Your task to perform on an android device: Go to calendar. Show me events next week Image 0: 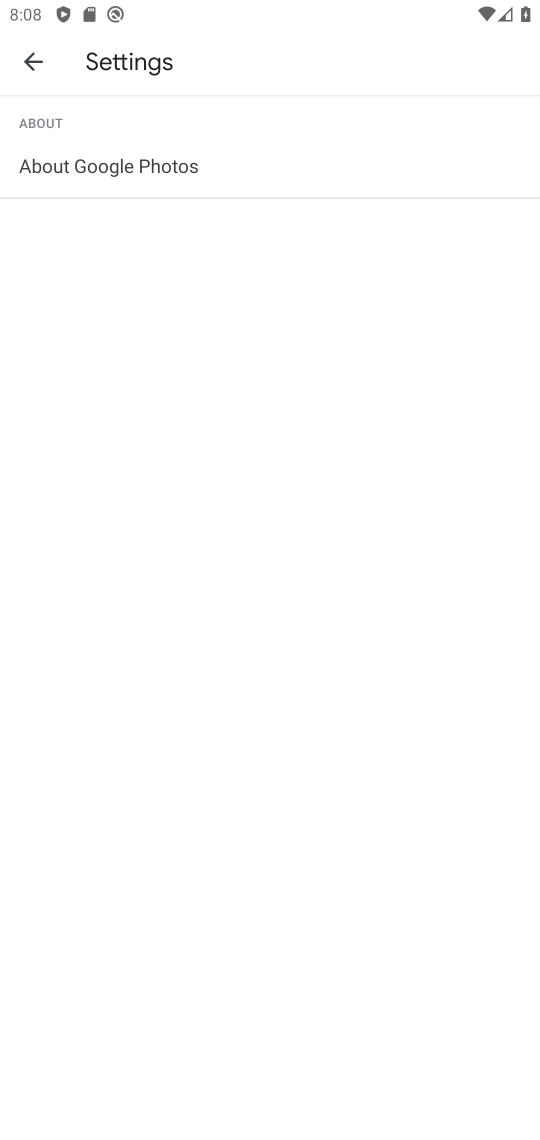
Step 0: drag from (106, 688) to (506, 515)
Your task to perform on an android device: Go to calendar. Show me events next week Image 1: 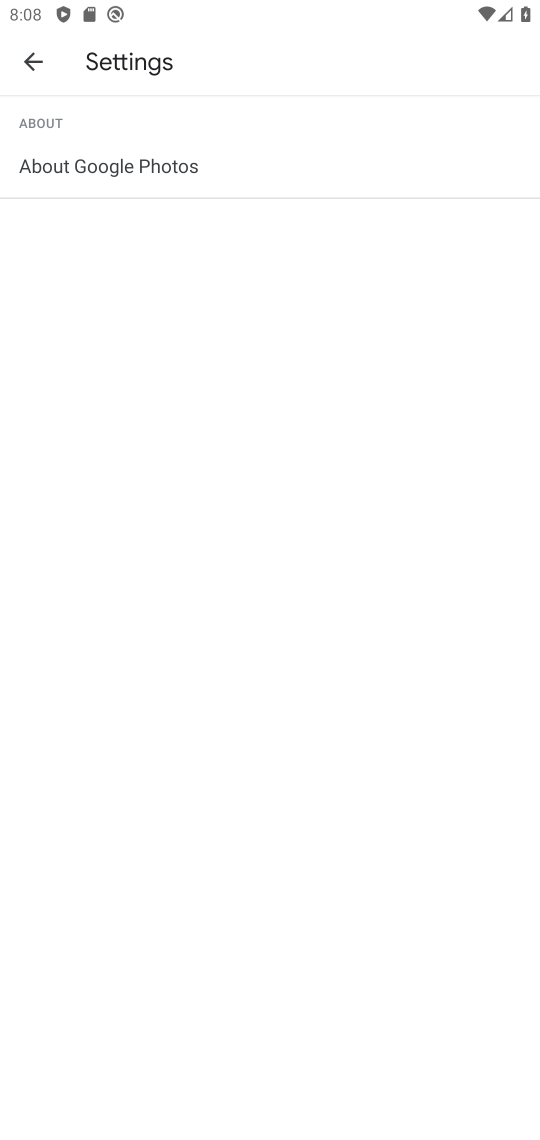
Step 1: press home button
Your task to perform on an android device: Go to calendar. Show me events next week Image 2: 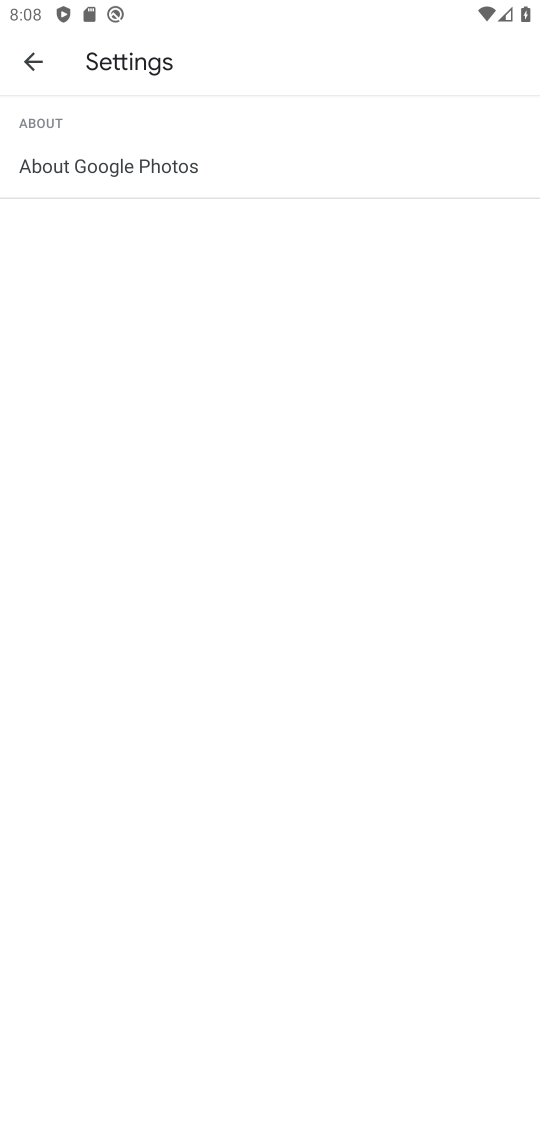
Step 2: press home button
Your task to perform on an android device: Go to calendar. Show me events next week Image 3: 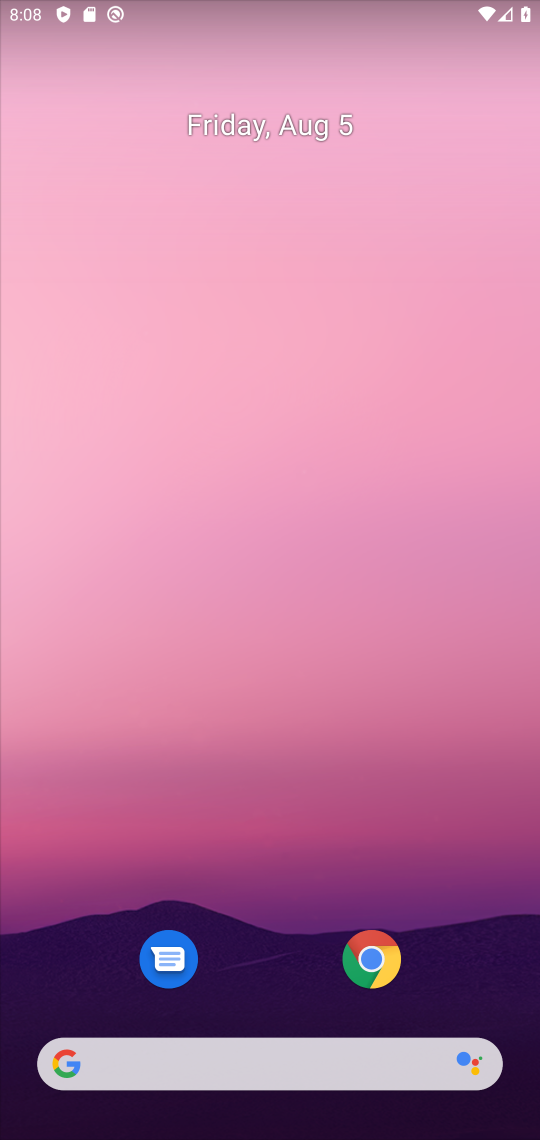
Step 3: press home button
Your task to perform on an android device: Go to calendar. Show me events next week Image 4: 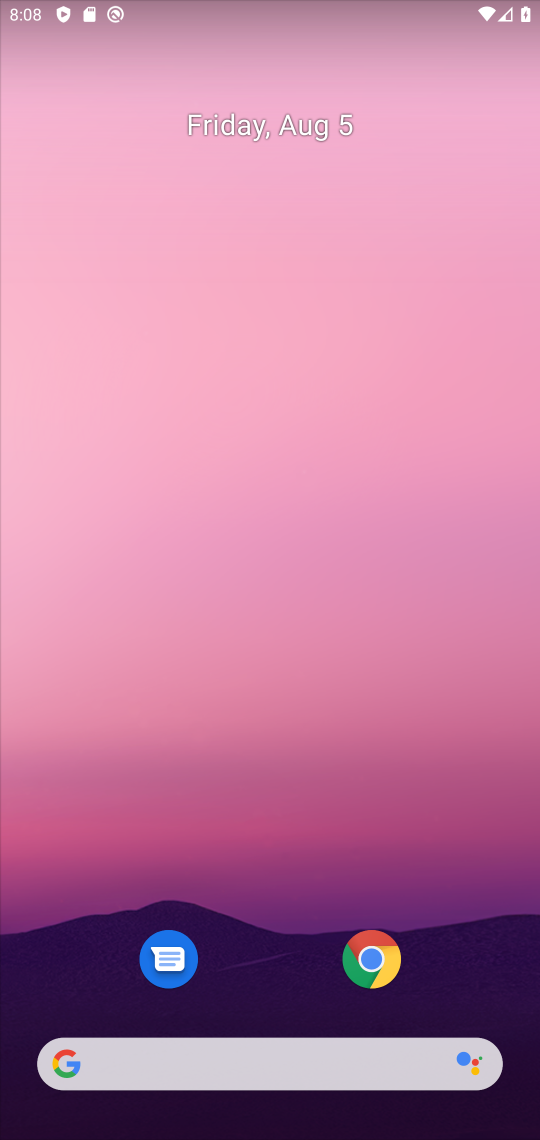
Step 4: click (263, 30)
Your task to perform on an android device: Go to calendar. Show me events next week Image 5: 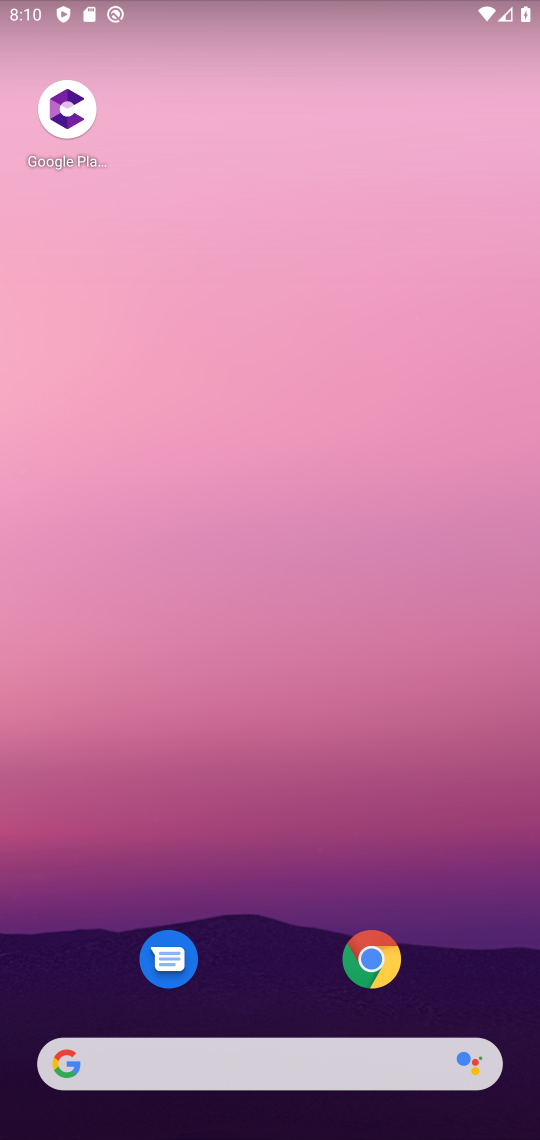
Step 5: drag from (244, 955) to (396, 103)
Your task to perform on an android device: Go to calendar. Show me events next week Image 6: 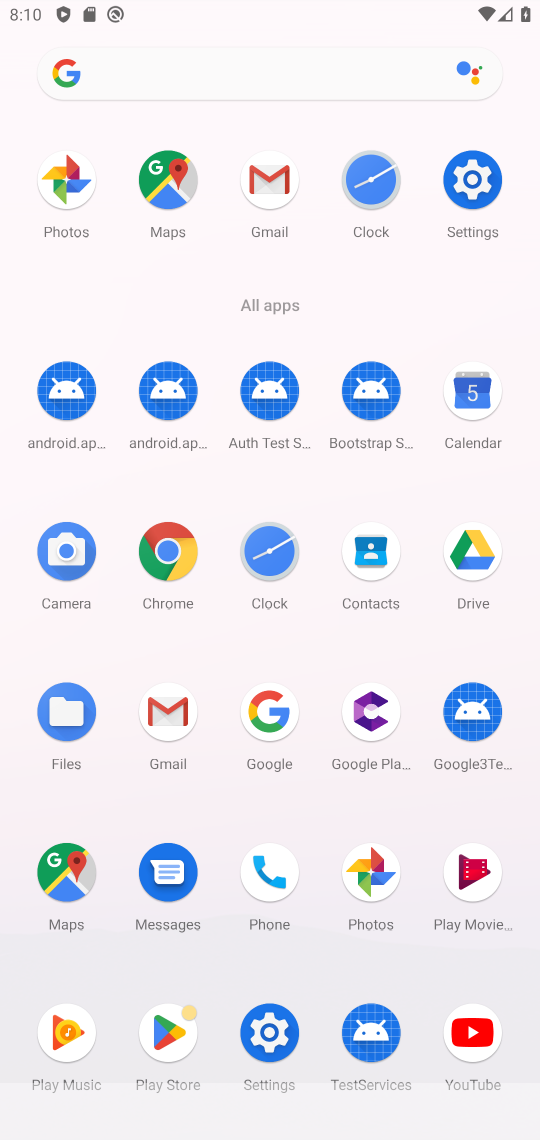
Step 6: drag from (299, 985) to (389, 462)
Your task to perform on an android device: Go to calendar. Show me events next week Image 7: 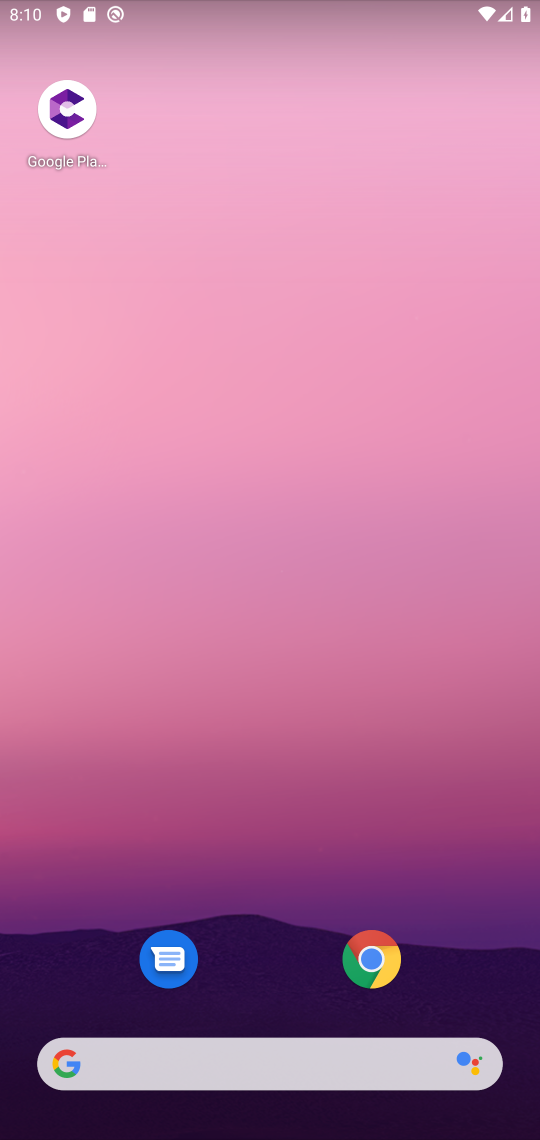
Step 7: drag from (269, 946) to (497, 675)
Your task to perform on an android device: Go to calendar. Show me events next week Image 8: 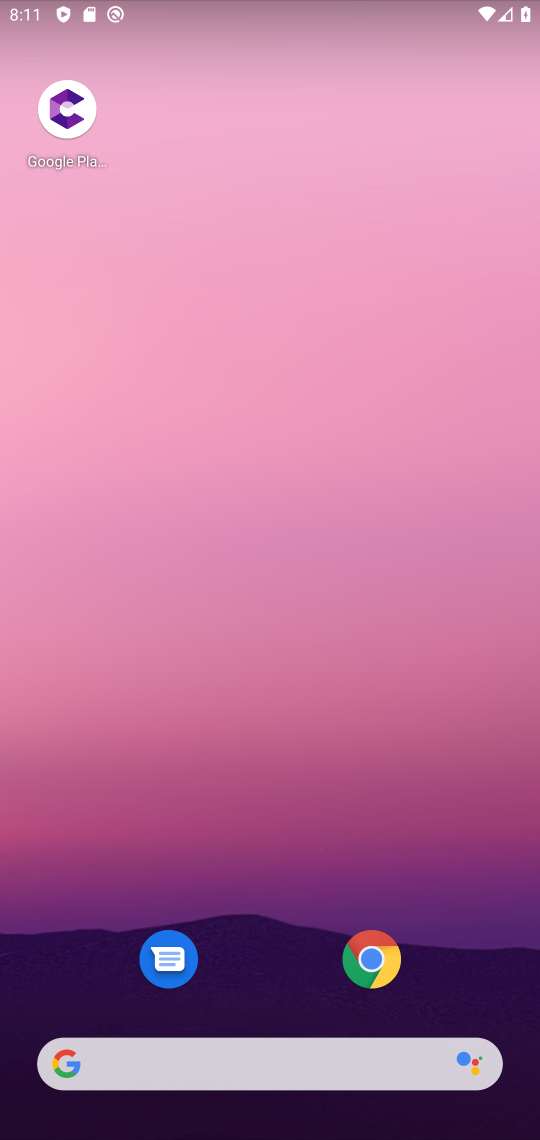
Step 8: drag from (224, 1002) to (293, 231)
Your task to perform on an android device: Go to calendar. Show me events next week Image 9: 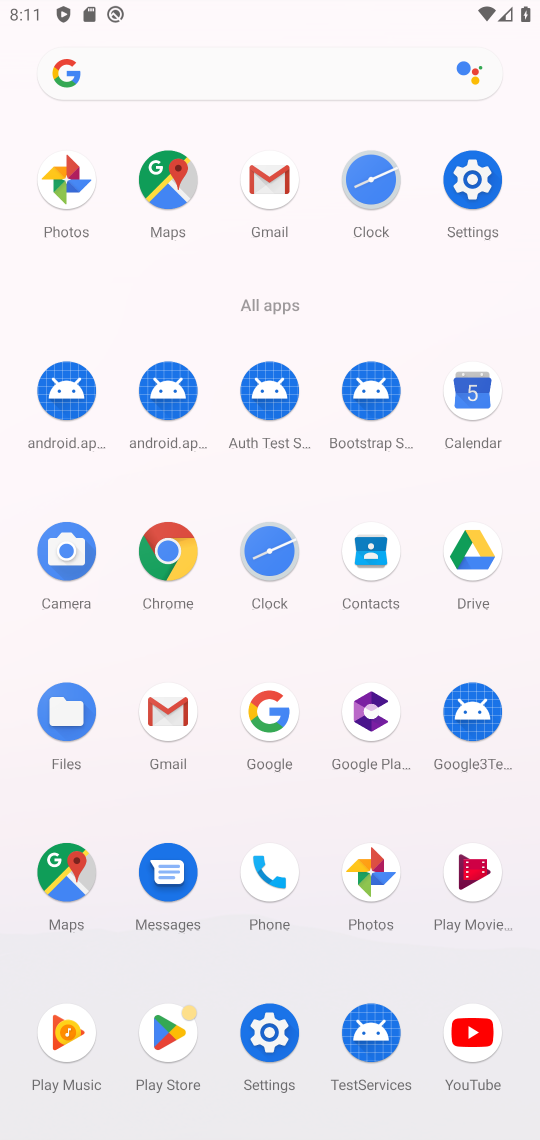
Step 9: drag from (270, 975) to (396, 206)
Your task to perform on an android device: Go to calendar. Show me events next week Image 10: 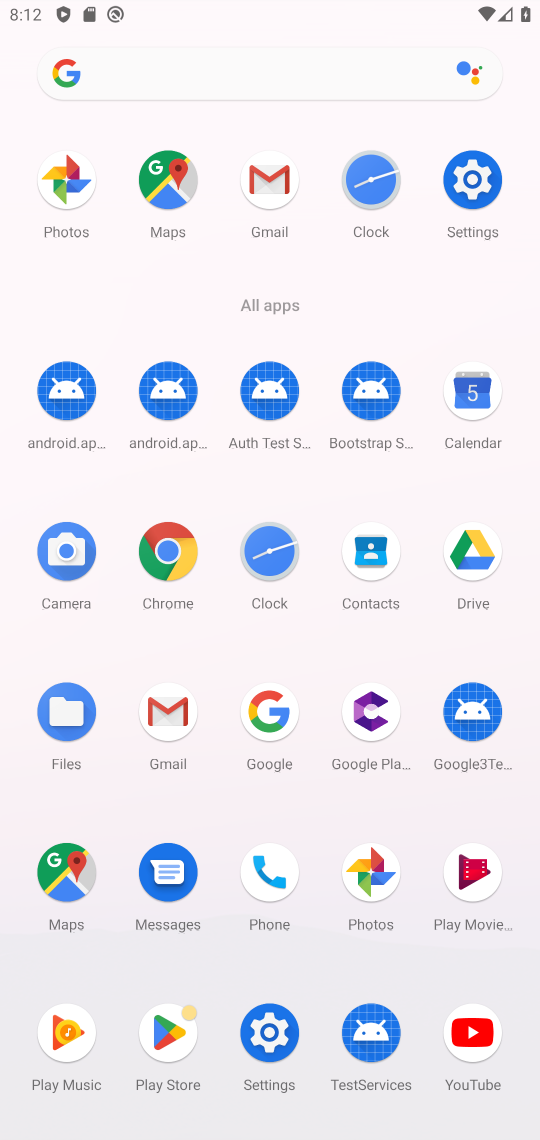
Step 10: drag from (325, 920) to (393, 387)
Your task to perform on an android device: Go to calendar. Show me events next week Image 11: 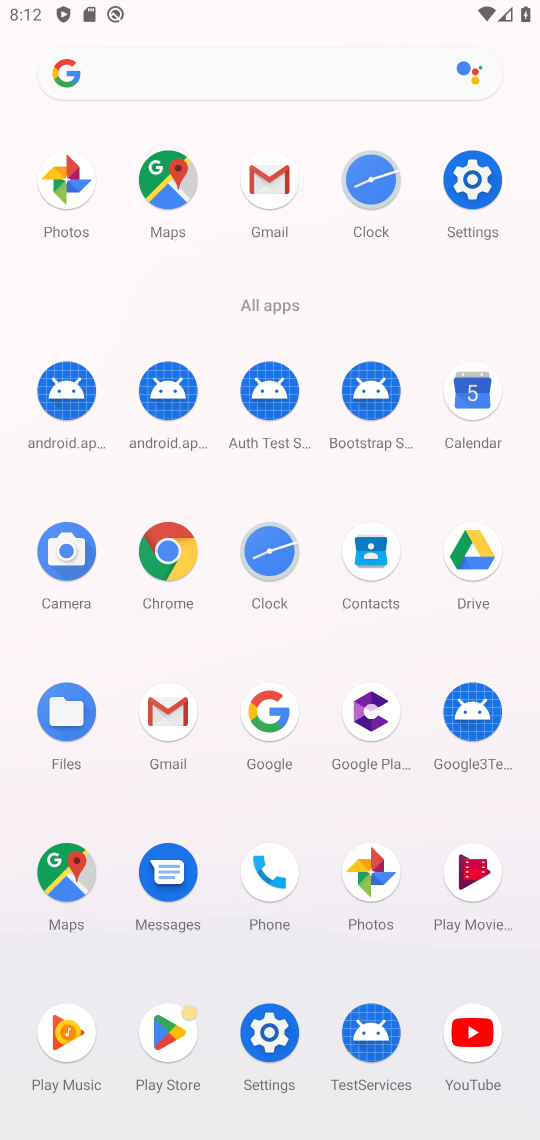
Step 11: click (490, 369)
Your task to perform on an android device: Go to calendar. Show me events next week Image 12: 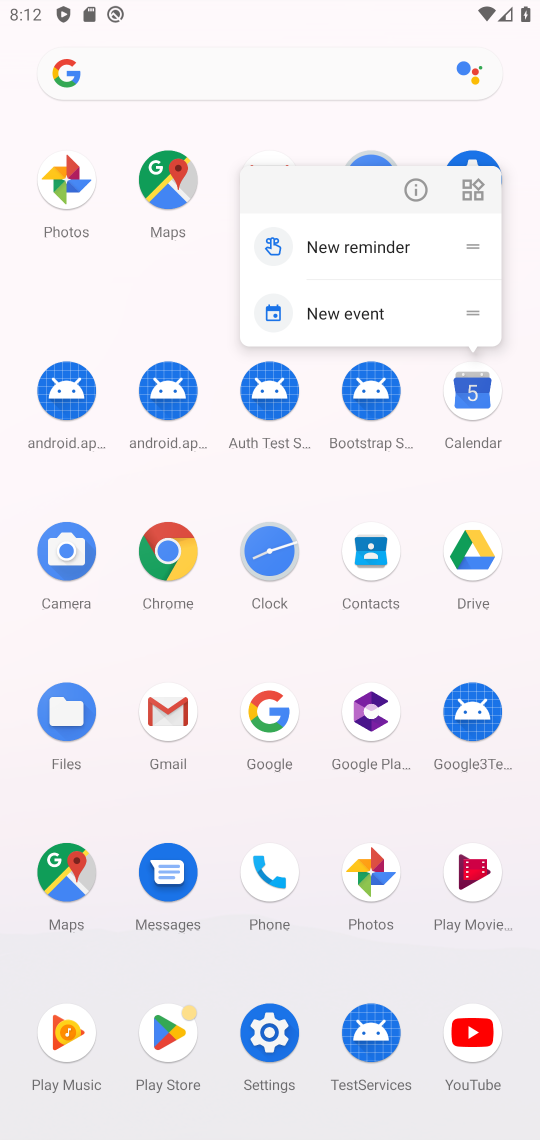
Step 12: click (420, 181)
Your task to perform on an android device: Go to calendar. Show me events next week Image 13: 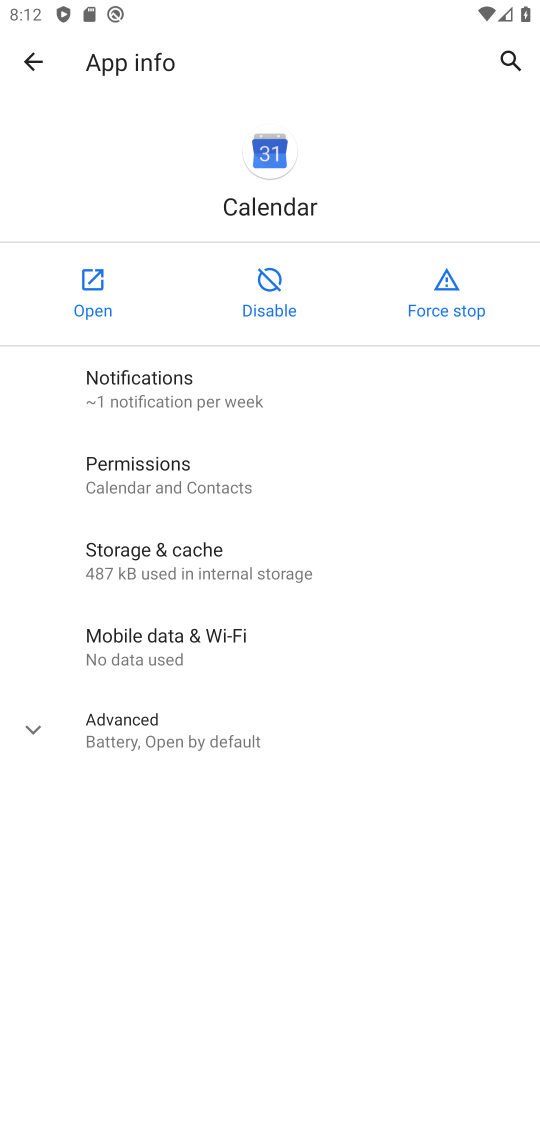
Step 13: click (105, 303)
Your task to perform on an android device: Go to calendar. Show me events next week Image 14: 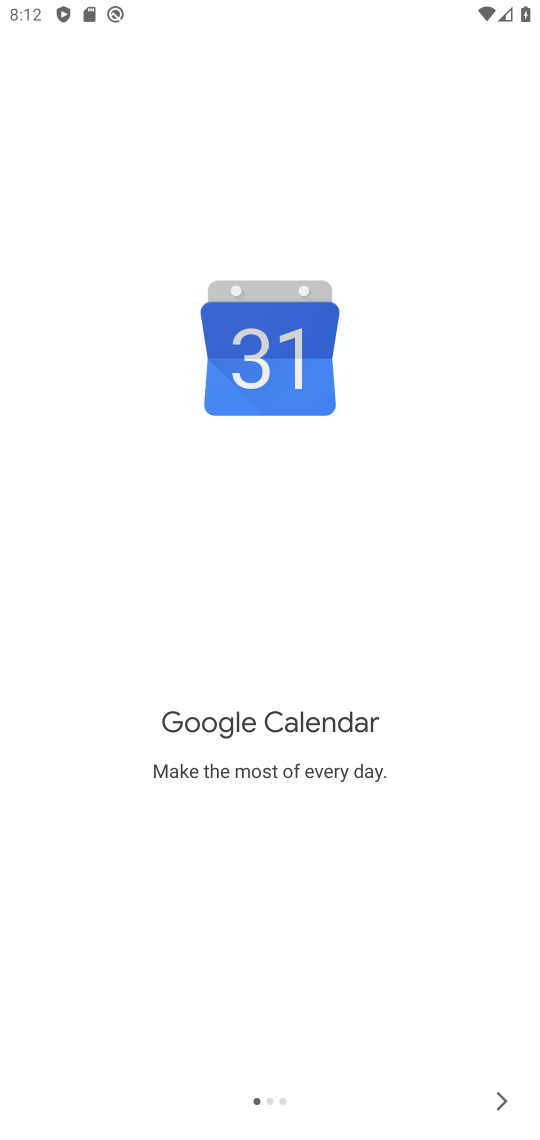
Step 14: click (501, 1097)
Your task to perform on an android device: Go to calendar. Show me events next week Image 15: 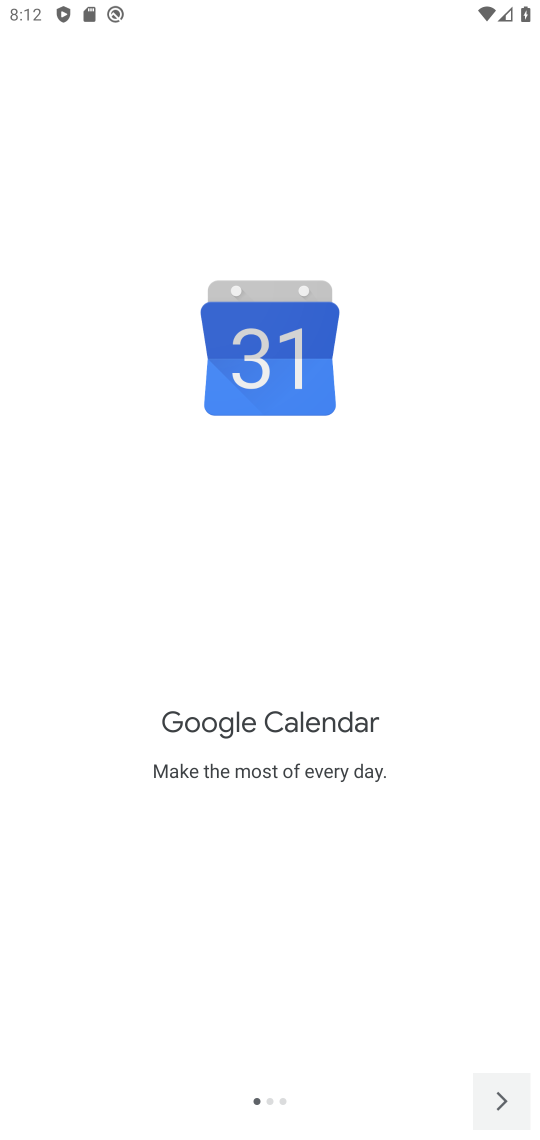
Step 15: click (501, 1097)
Your task to perform on an android device: Go to calendar. Show me events next week Image 16: 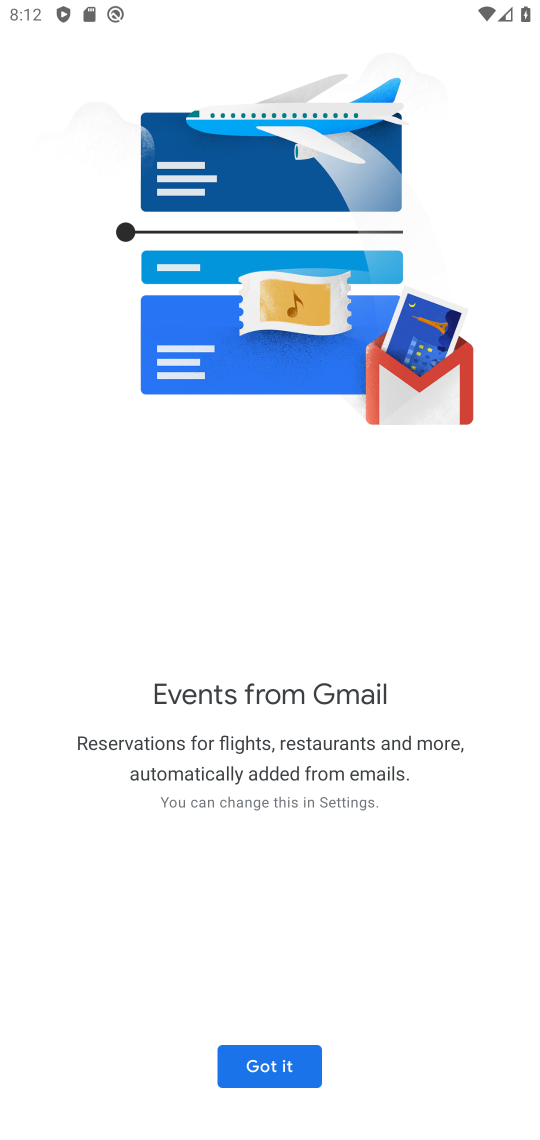
Step 16: click (241, 1060)
Your task to perform on an android device: Go to calendar. Show me events next week Image 17: 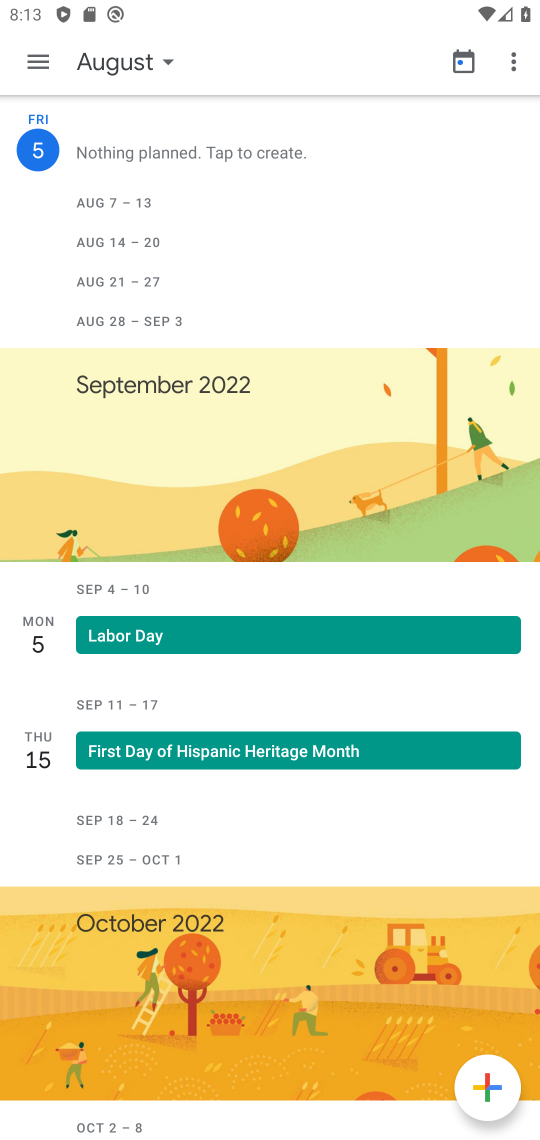
Step 17: click (48, 70)
Your task to perform on an android device: Go to calendar. Show me events next week Image 18: 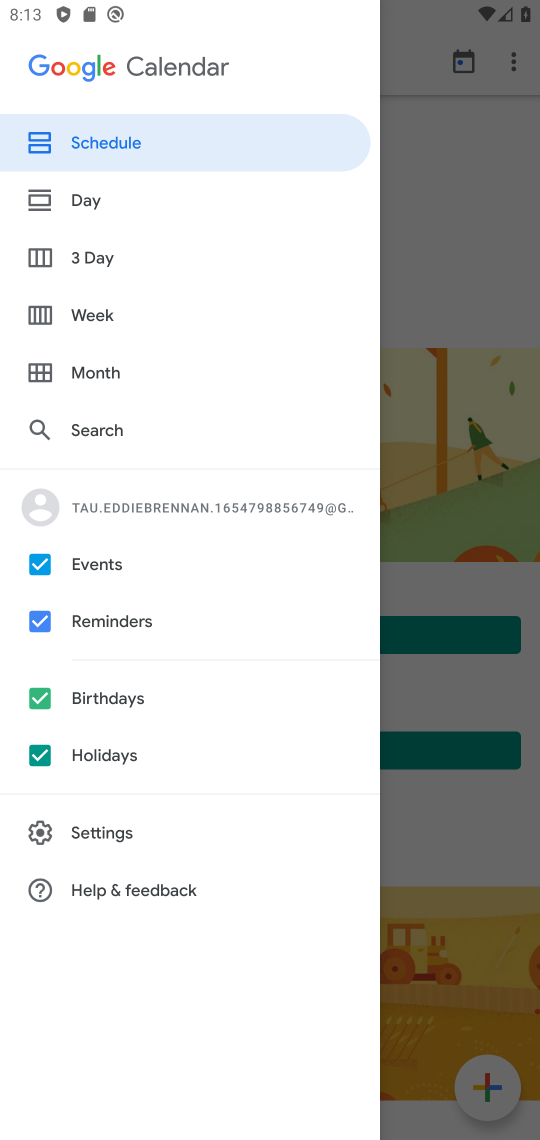
Step 18: click (452, 252)
Your task to perform on an android device: Go to calendar. Show me events next week Image 19: 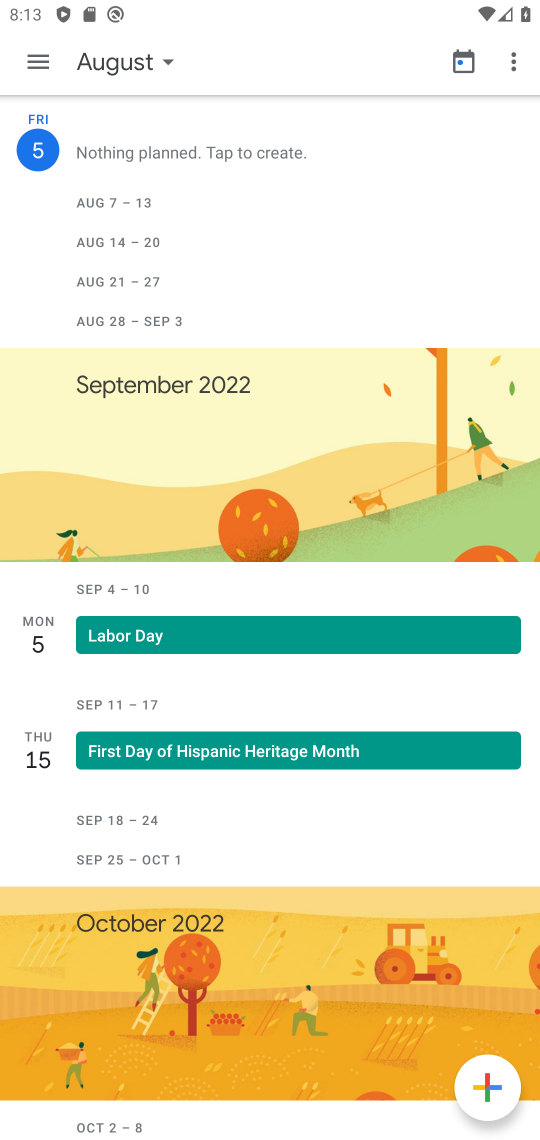
Step 19: click (114, 52)
Your task to perform on an android device: Go to calendar. Show me events next week Image 20: 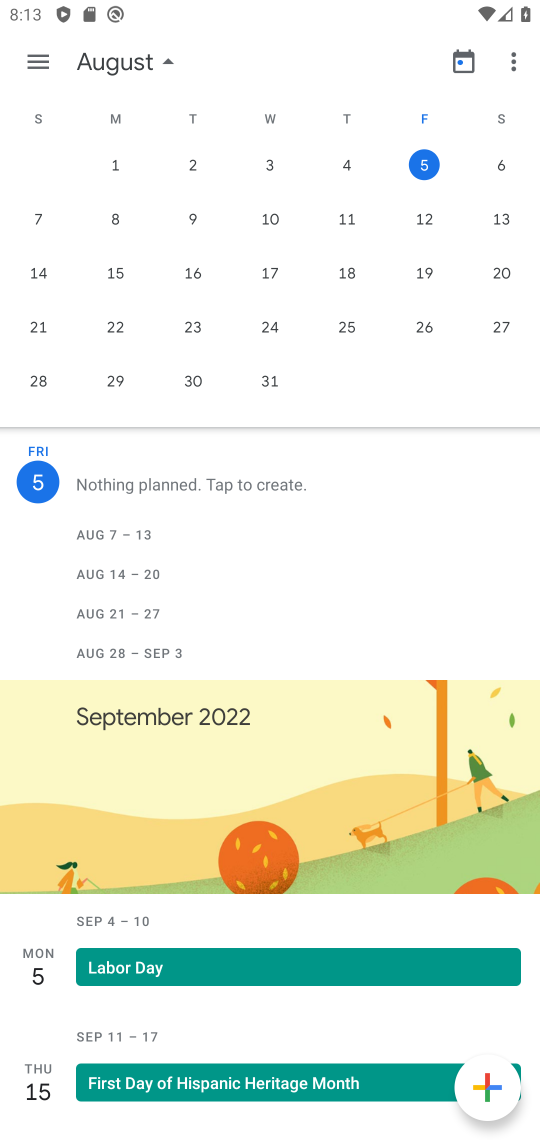
Step 20: click (337, 232)
Your task to perform on an android device: Go to calendar. Show me events next week Image 21: 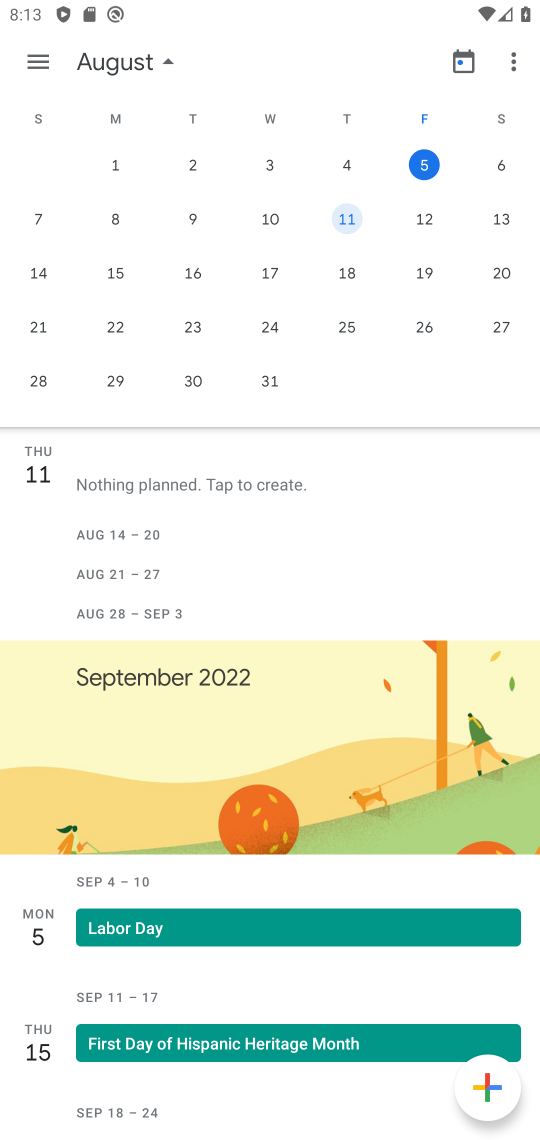
Step 21: task complete